Your task to perform on an android device: turn on improve location accuracy Image 0: 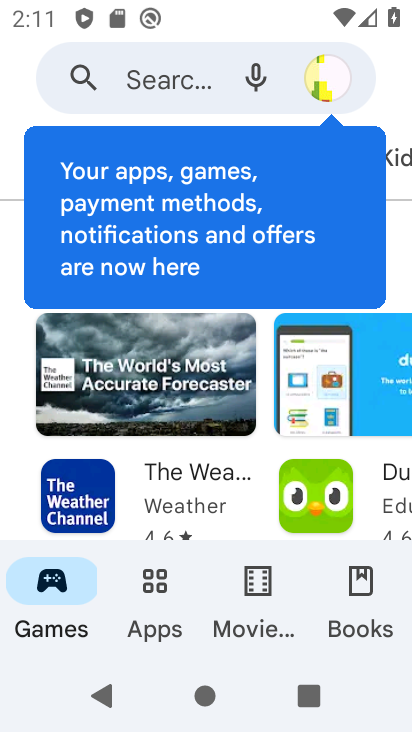
Step 0: press home button
Your task to perform on an android device: turn on improve location accuracy Image 1: 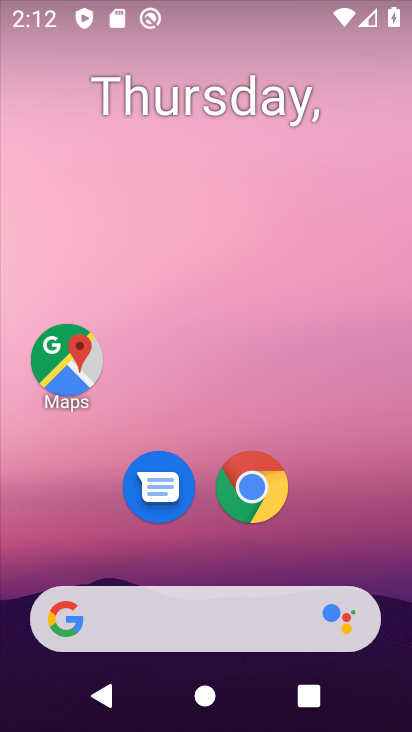
Step 1: drag from (327, 526) to (345, 72)
Your task to perform on an android device: turn on improve location accuracy Image 2: 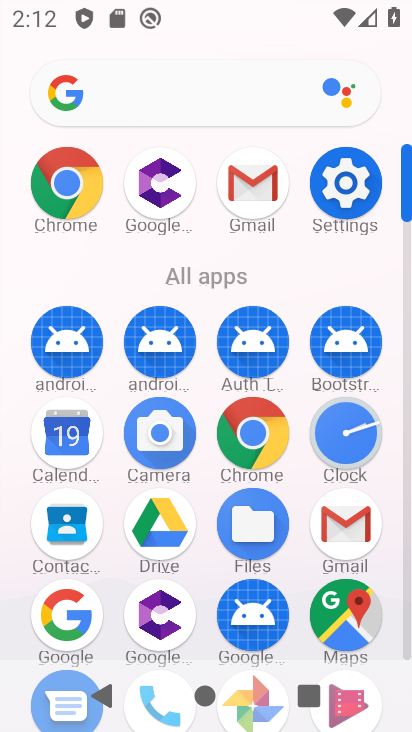
Step 2: click (362, 173)
Your task to perform on an android device: turn on improve location accuracy Image 3: 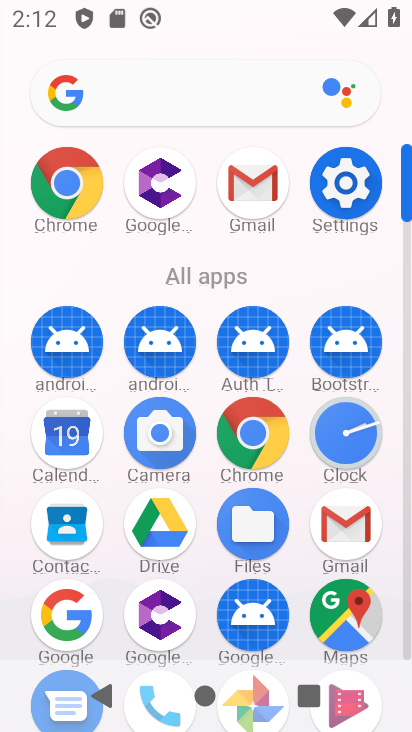
Step 3: click (362, 173)
Your task to perform on an android device: turn on improve location accuracy Image 4: 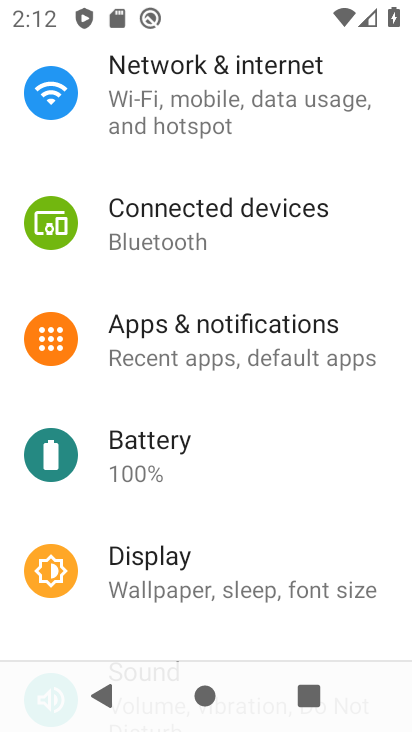
Step 4: drag from (217, 382) to (217, 116)
Your task to perform on an android device: turn on improve location accuracy Image 5: 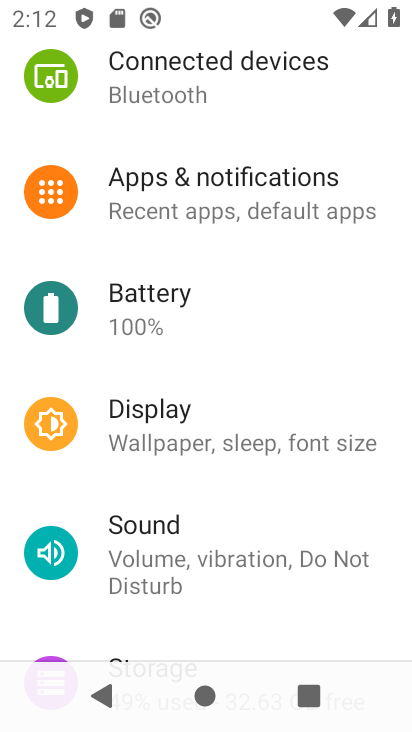
Step 5: drag from (202, 539) to (240, 139)
Your task to perform on an android device: turn on improve location accuracy Image 6: 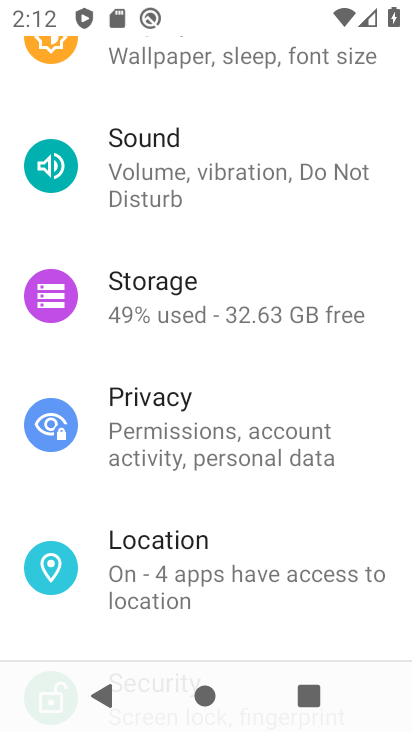
Step 6: click (213, 552)
Your task to perform on an android device: turn on improve location accuracy Image 7: 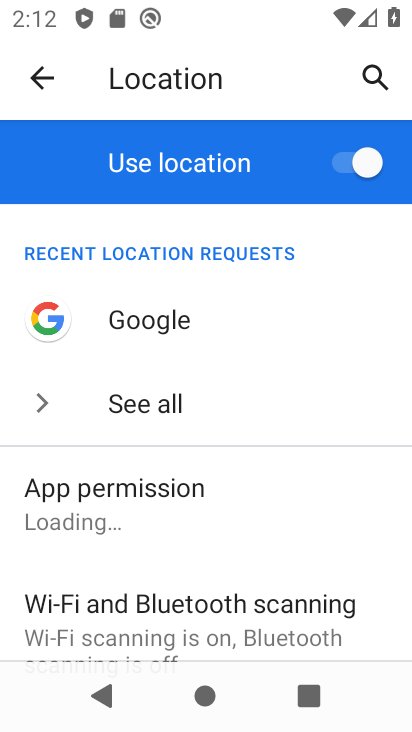
Step 7: drag from (211, 552) to (273, 110)
Your task to perform on an android device: turn on improve location accuracy Image 8: 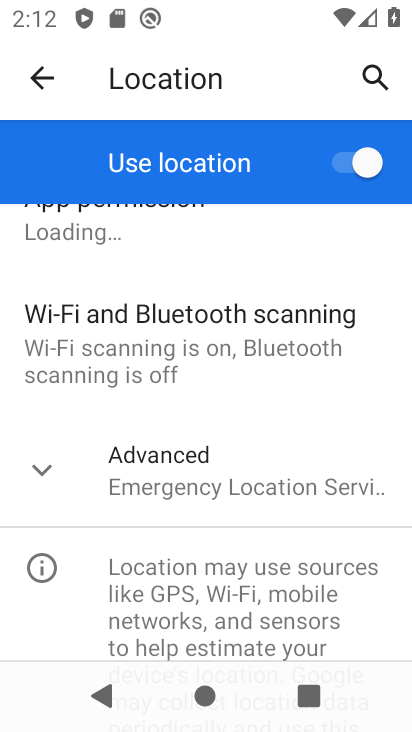
Step 8: drag from (217, 550) to (261, 101)
Your task to perform on an android device: turn on improve location accuracy Image 9: 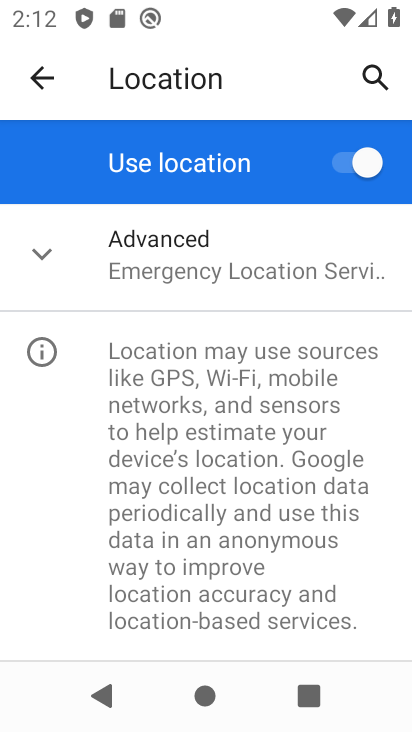
Step 9: drag from (252, 634) to (335, 202)
Your task to perform on an android device: turn on improve location accuracy Image 10: 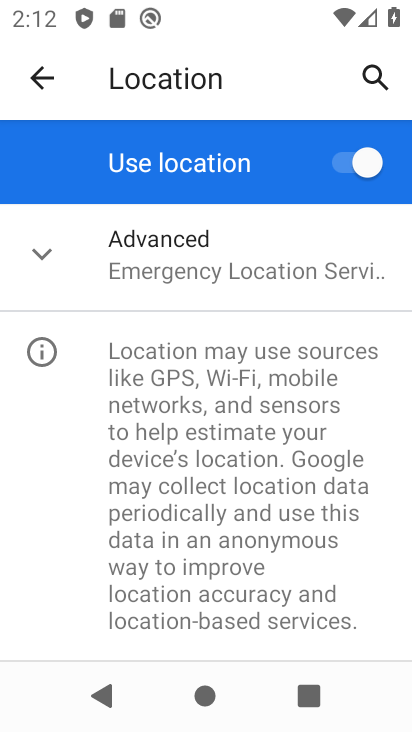
Step 10: drag from (199, 519) to (250, 190)
Your task to perform on an android device: turn on improve location accuracy Image 11: 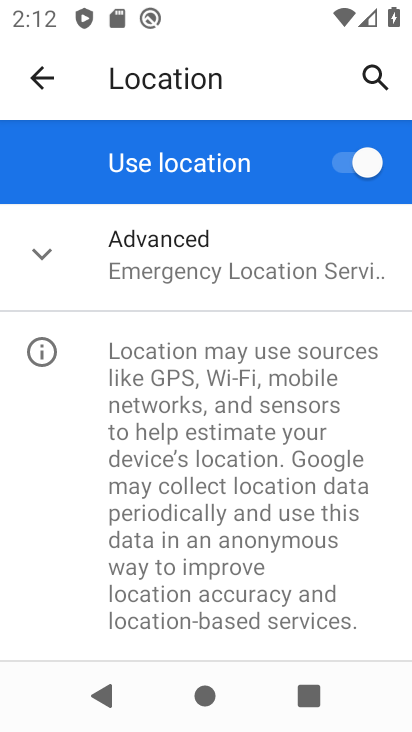
Step 11: click (253, 263)
Your task to perform on an android device: turn on improve location accuracy Image 12: 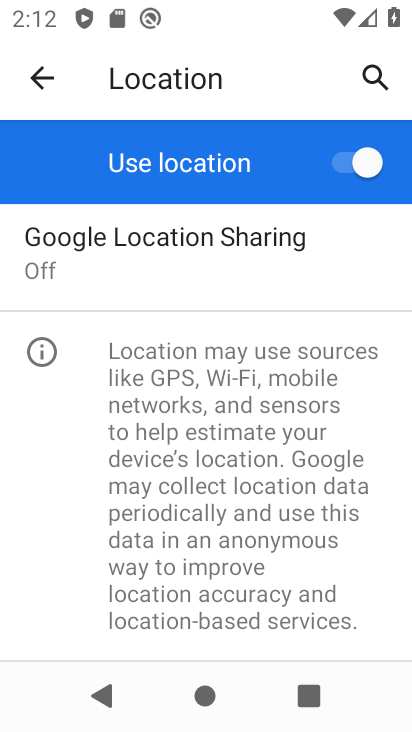
Step 12: click (147, 469)
Your task to perform on an android device: turn on improve location accuracy Image 13: 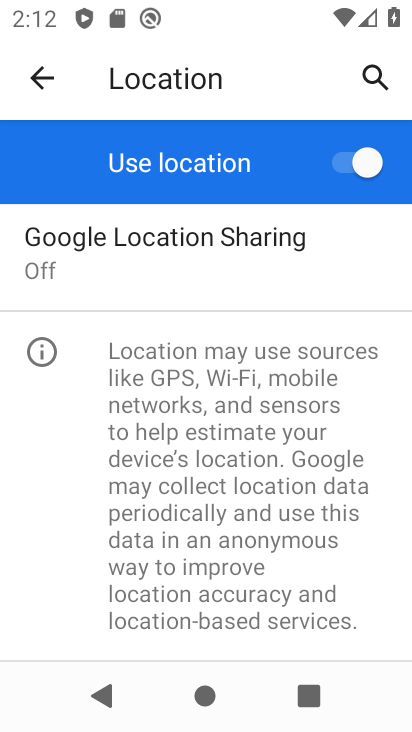
Step 13: drag from (174, 422) to (196, 312)
Your task to perform on an android device: turn on improve location accuracy Image 14: 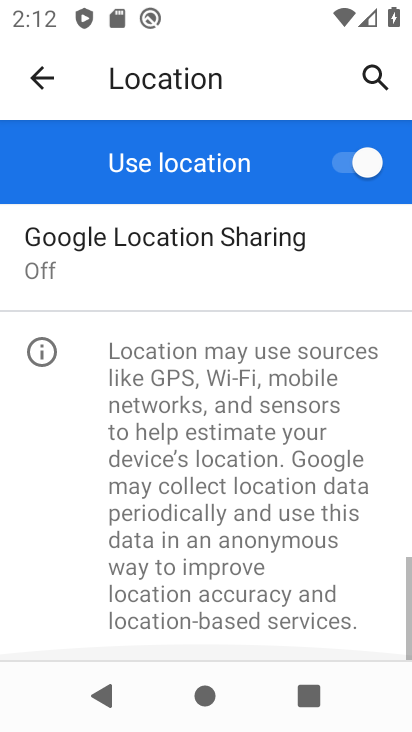
Step 14: drag from (200, 294) to (172, 490)
Your task to perform on an android device: turn on improve location accuracy Image 15: 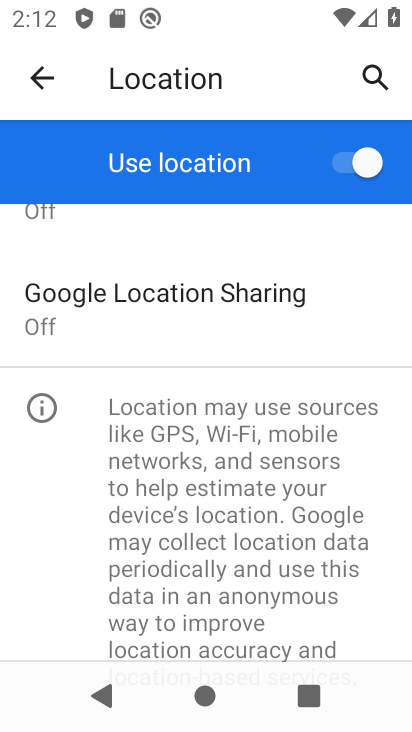
Step 15: drag from (300, 259) to (234, 577)
Your task to perform on an android device: turn on improve location accuracy Image 16: 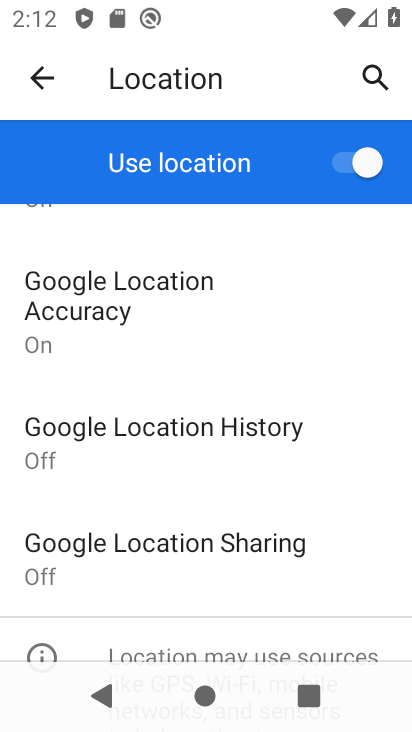
Step 16: click (362, 278)
Your task to perform on an android device: turn on improve location accuracy Image 17: 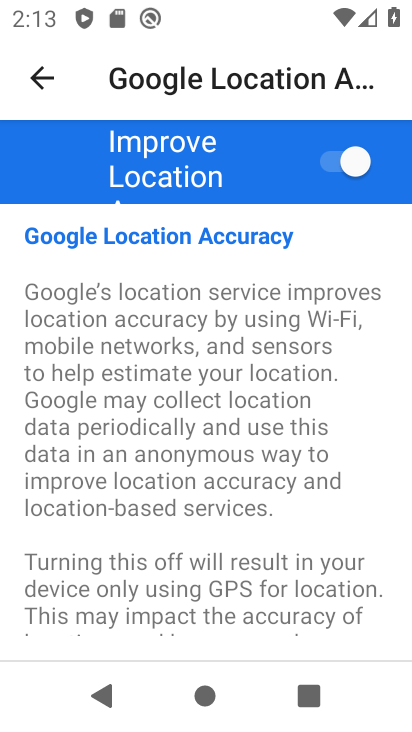
Step 17: task complete